Your task to perform on an android device: star an email in the gmail app Image 0: 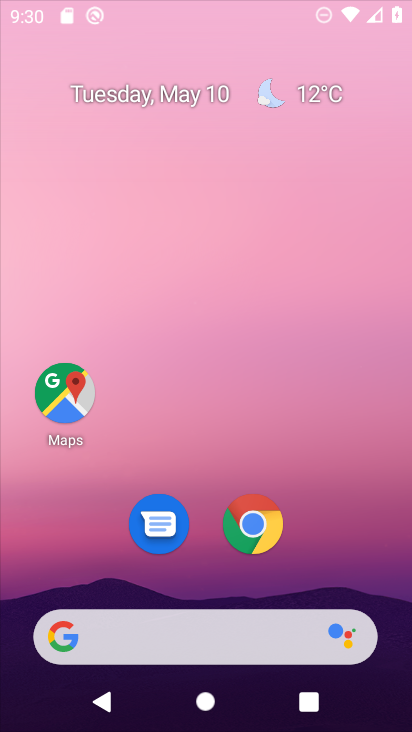
Step 0: drag from (321, 142) to (318, 100)
Your task to perform on an android device: star an email in the gmail app Image 1: 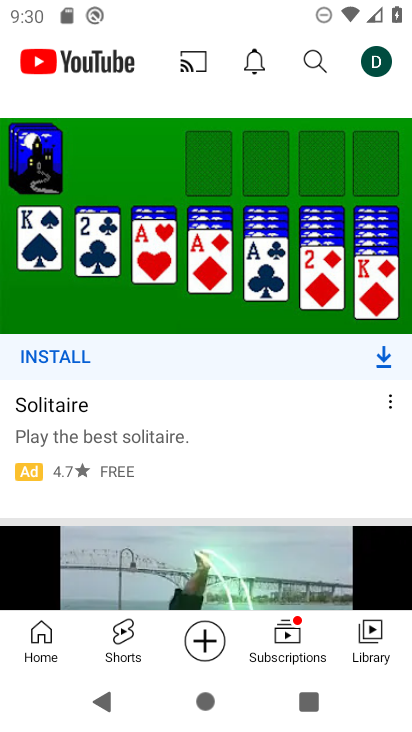
Step 1: press home button
Your task to perform on an android device: star an email in the gmail app Image 2: 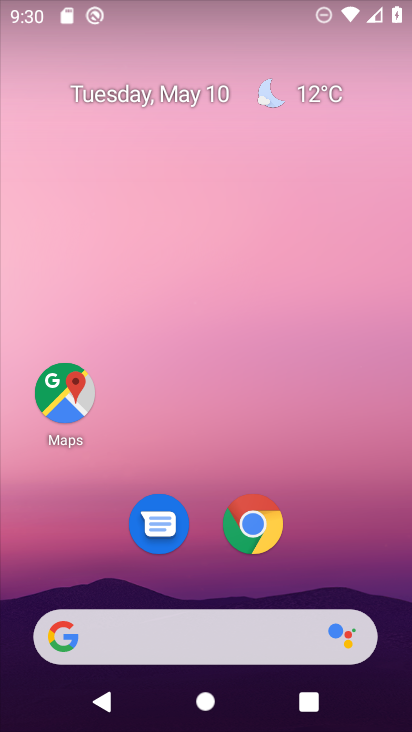
Step 2: drag from (306, 476) to (252, 62)
Your task to perform on an android device: star an email in the gmail app Image 3: 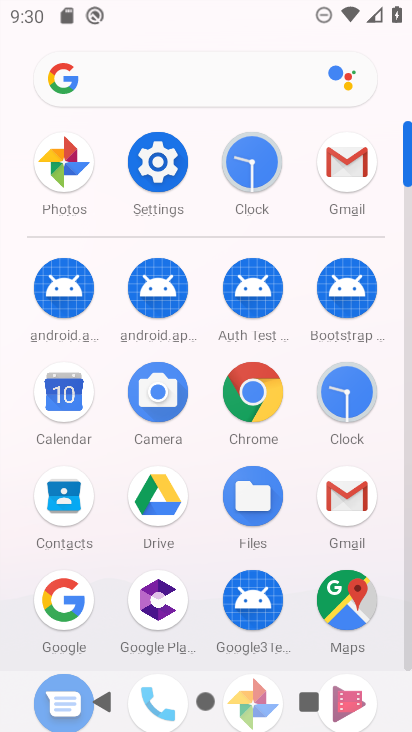
Step 3: click (351, 167)
Your task to perform on an android device: star an email in the gmail app Image 4: 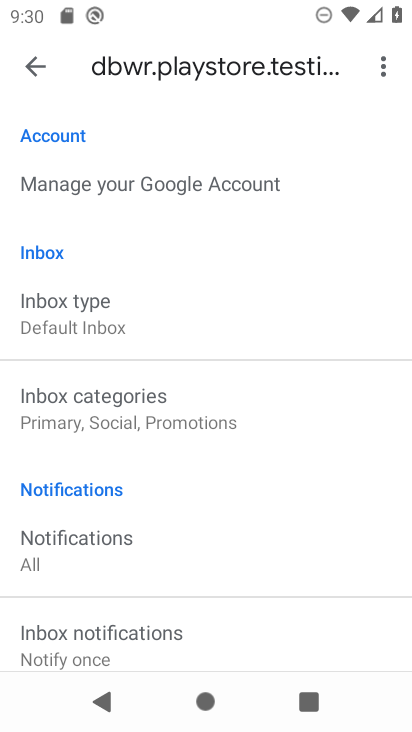
Step 4: click (38, 59)
Your task to perform on an android device: star an email in the gmail app Image 5: 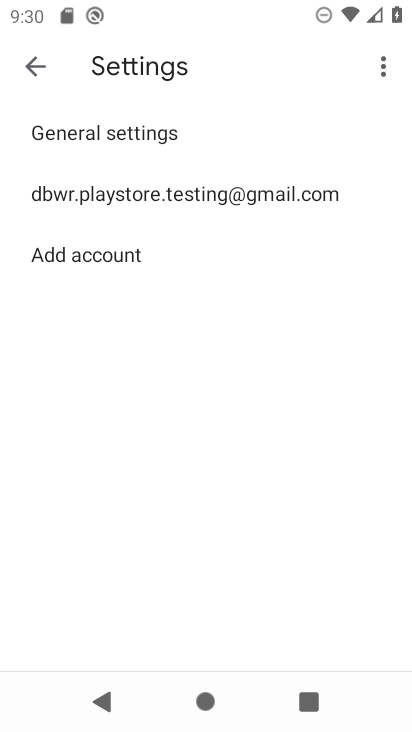
Step 5: click (39, 58)
Your task to perform on an android device: star an email in the gmail app Image 6: 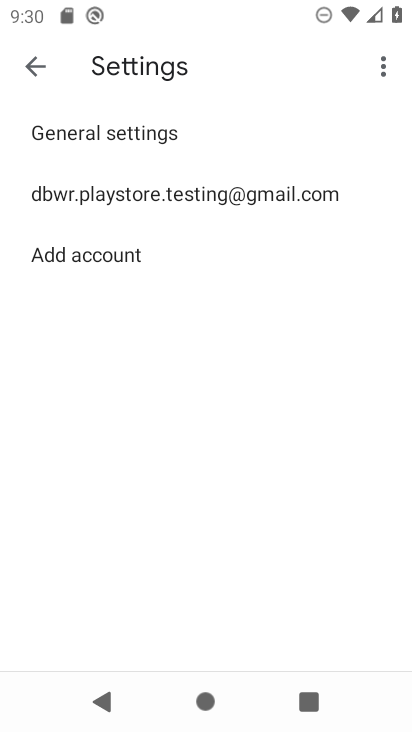
Step 6: click (33, 62)
Your task to perform on an android device: star an email in the gmail app Image 7: 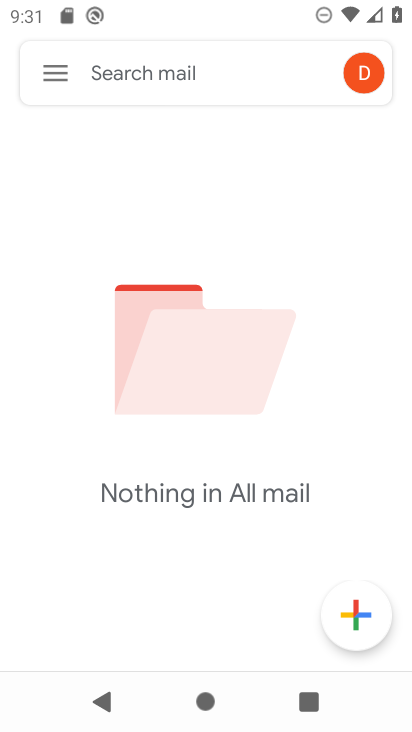
Step 7: task complete